Your task to perform on an android device: create a new album in the google photos Image 0: 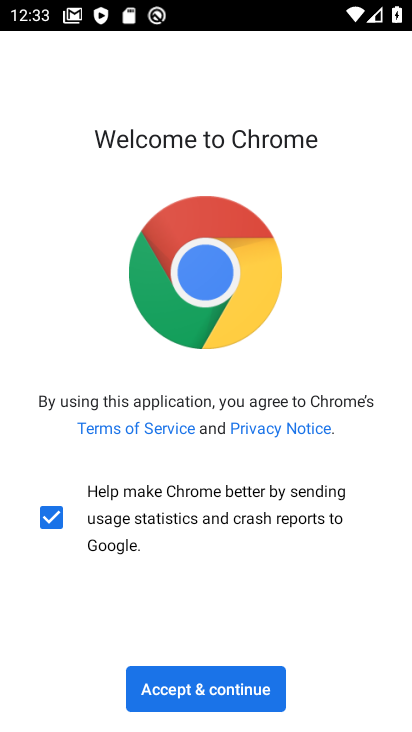
Step 0: press home button
Your task to perform on an android device: create a new album in the google photos Image 1: 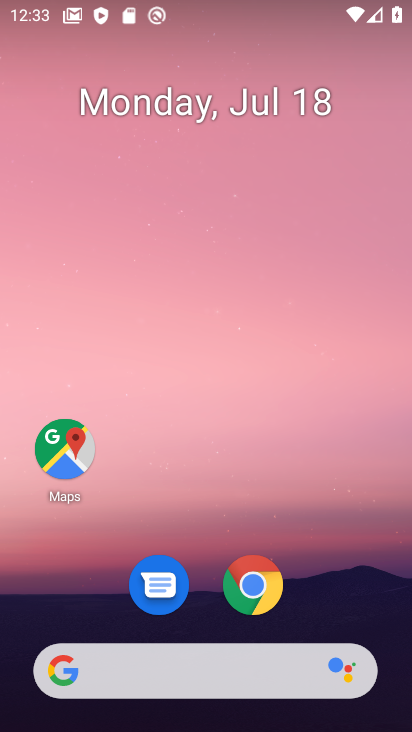
Step 1: drag from (247, 668) to (356, 150)
Your task to perform on an android device: create a new album in the google photos Image 2: 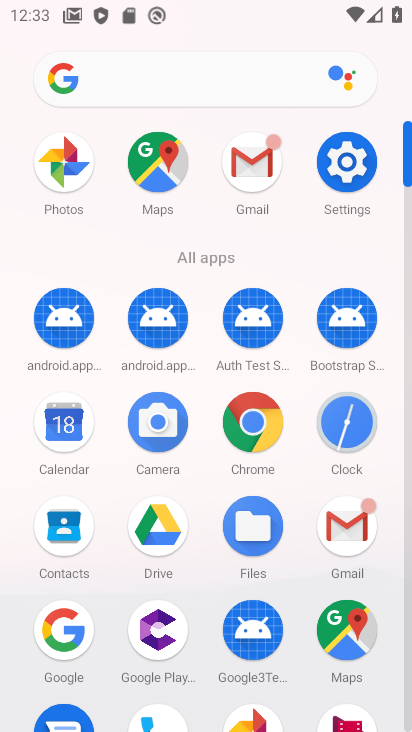
Step 2: click (53, 160)
Your task to perform on an android device: create a new album in the google photos Image 3: 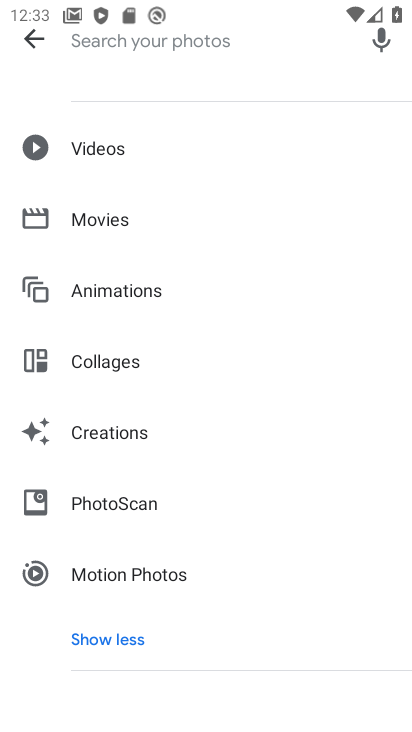
Step 3: click (33, 38)
Your task to perform on an android device: create a new album in the google photos Image 4: 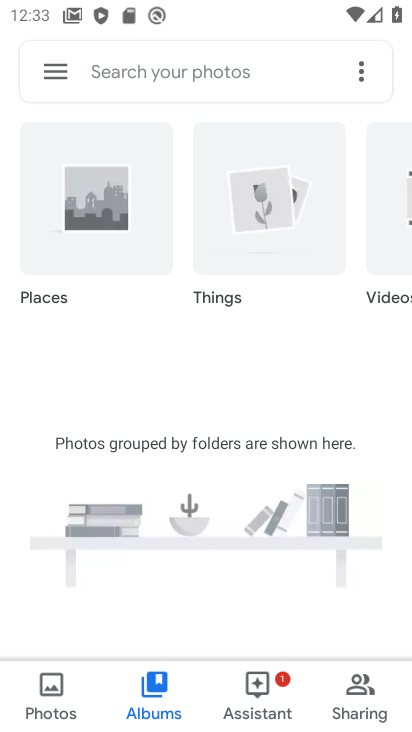
Step 4: drag from (251, 536) to (291, 428)
Your task to perform on an android device: create a new album in the google photos Image 5: 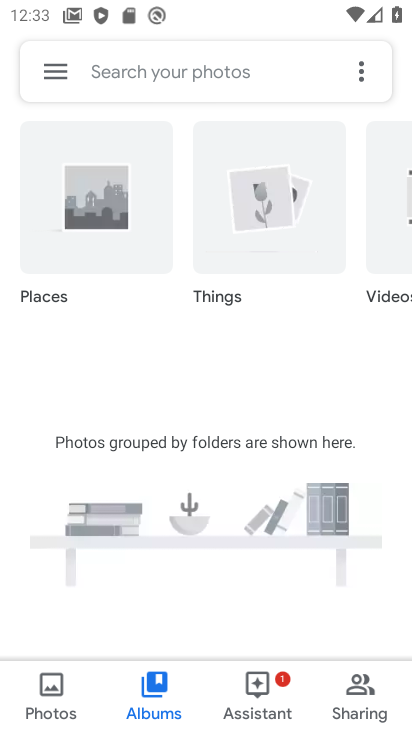
Step 5: click (149, 698)
Your task to perform on an android device: create a new album in the google photos Image 6: 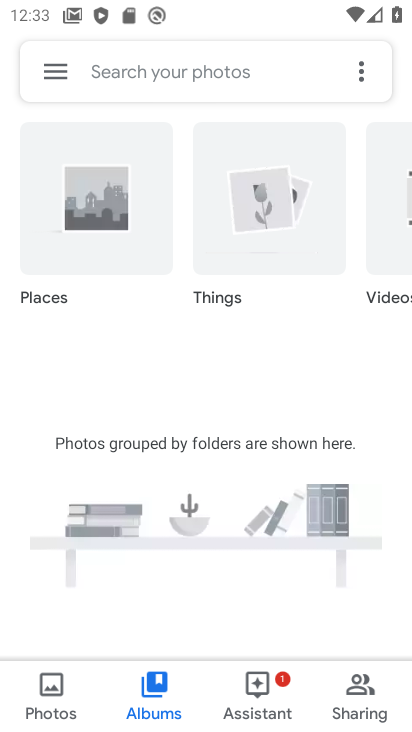
Step 6: task complete